Your task to perform on an android device: When is my next meeting? Image 0: 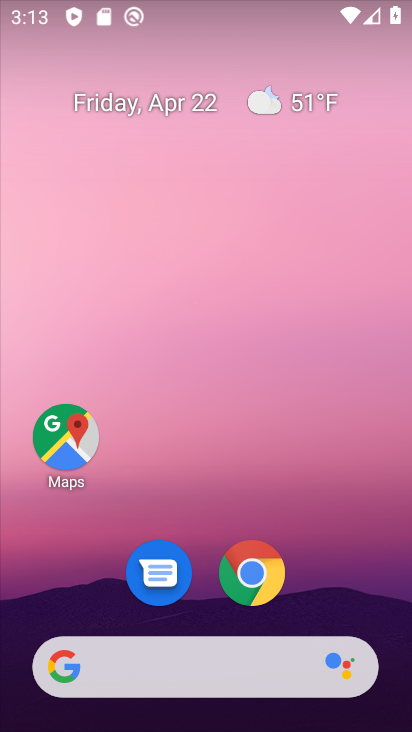
Step 0: drag from (285, 625) to (327, 105)
Your task to perform on an android device: When is my next meeting? Image 1: 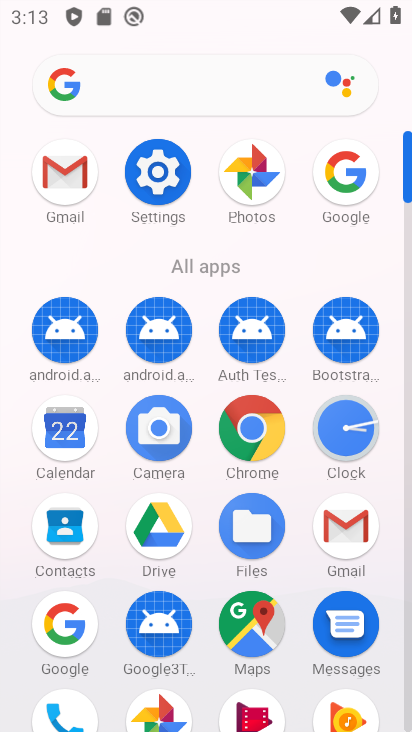
Step 1: click (75, 431)
Your task to perform on an android device: When is my next meeting? Image 2: 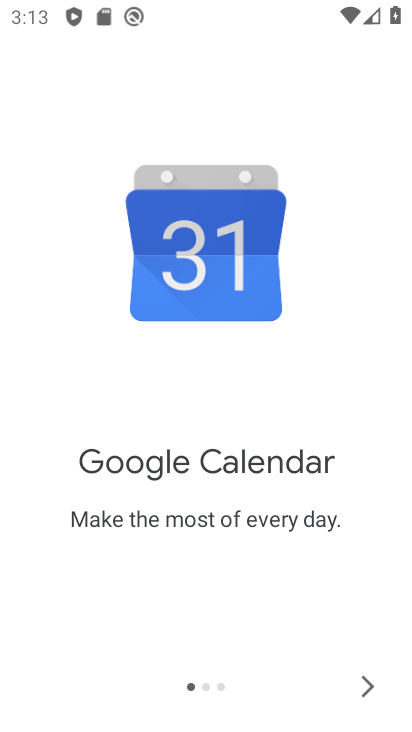
Step 2: click (371, 687)
Your task to perform on an android device: When is my next meeting? Image 3: 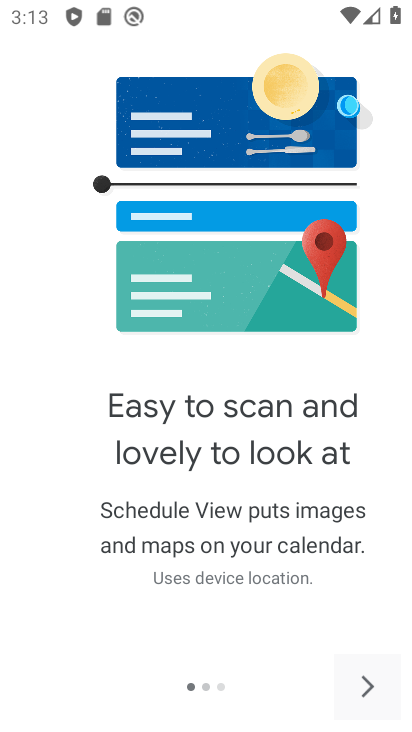
Step 3: click (371, 687)
Your task to perform on an android device: When is my next meeting? Image 4: 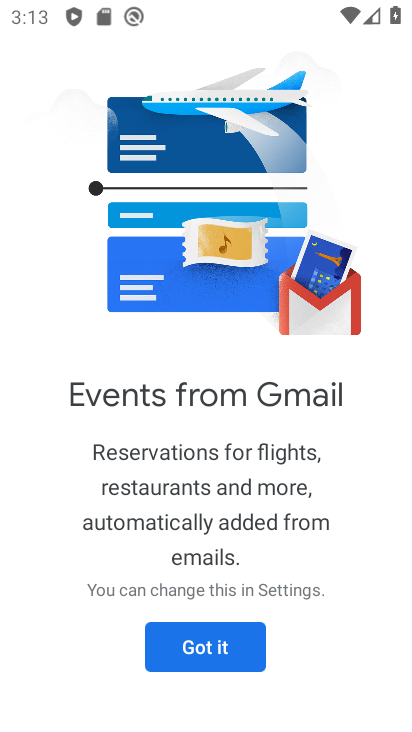
Step 4: click (175, 635)
Your task to perform on an android device: When is my next meeting? Image 5: 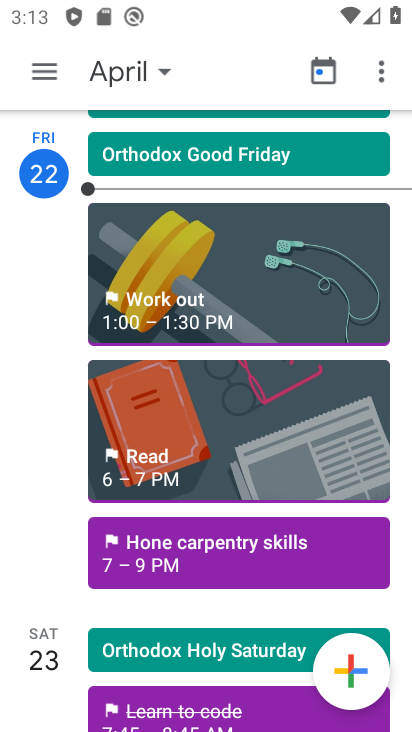
Step 5: click (50, 667)
Your task to perform on an android device: When is my next meeting? Image 6: 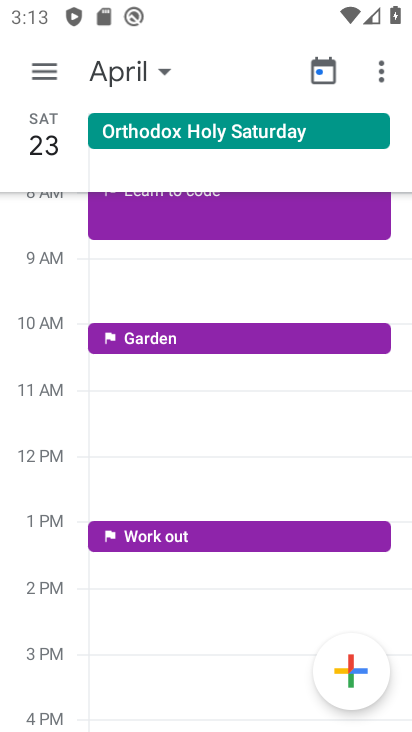
Step 6: task complete